Your task to perform on an android device: Open Wikipedia Image 0: 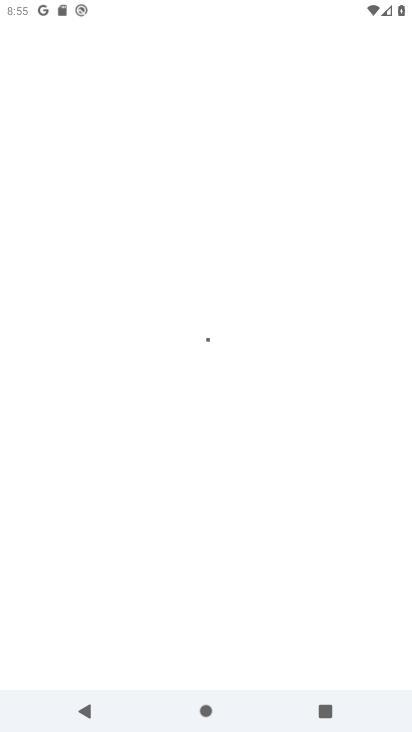
Step 0: press home button
Your task to perform on an android device: Open Wikipedia Image 1: 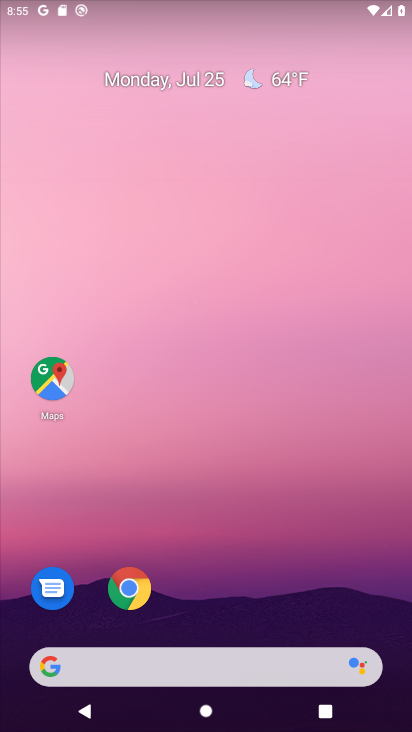
Step 1: click (126, 598)
Your task to perform on an android device: Open Wikipedia Image 2: 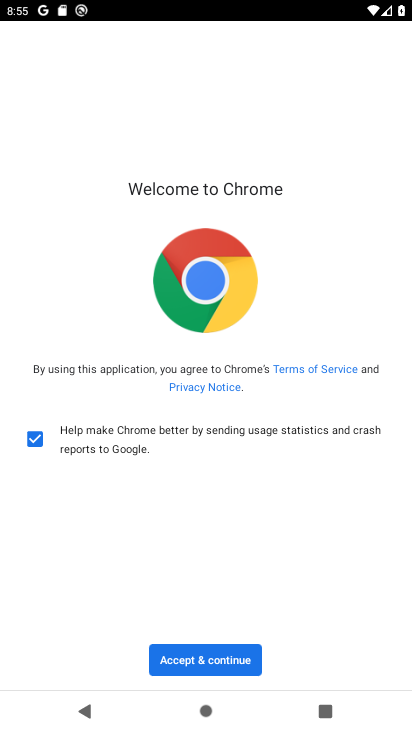
Step 2: click (202, 660)
Your task to perform on an android device: Open Wikipedia Image 3: 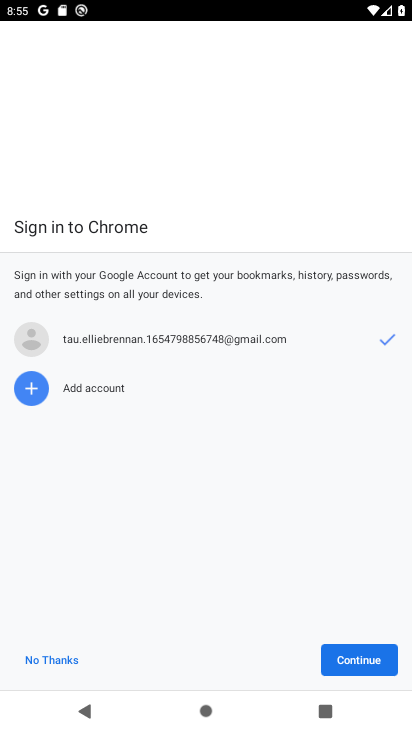
Step 3: click (325, 654)
Your task to perform on an android device: Open Wikipedia Image 4: 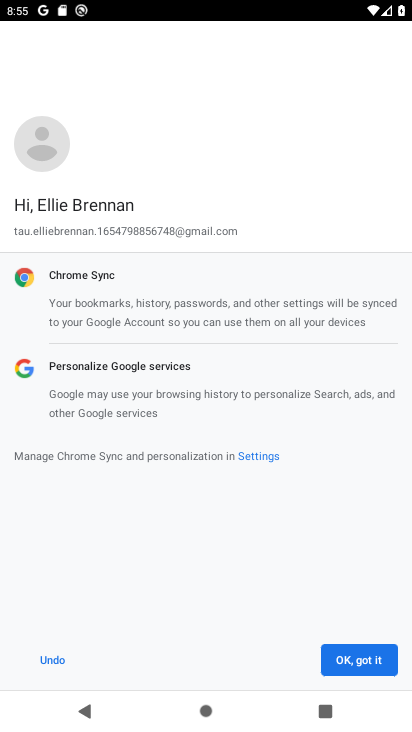
Step 4: click (325, 654)
Your task to perform on an android device: Open Wikipedia Image 5: 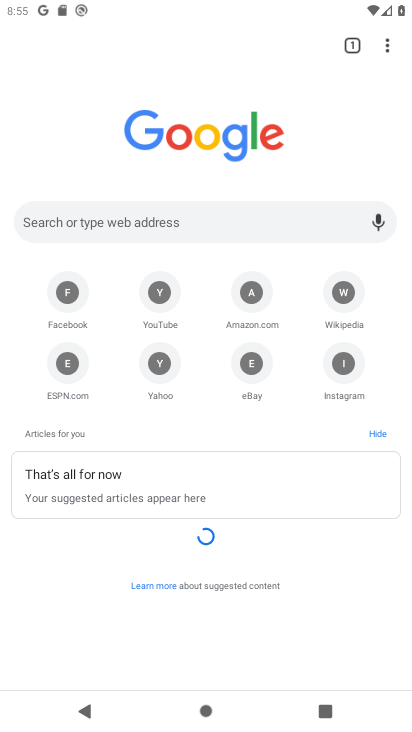
Step 5: click (348, 294)
Your task to perform on an android device: Open Wikipedia Image 6: 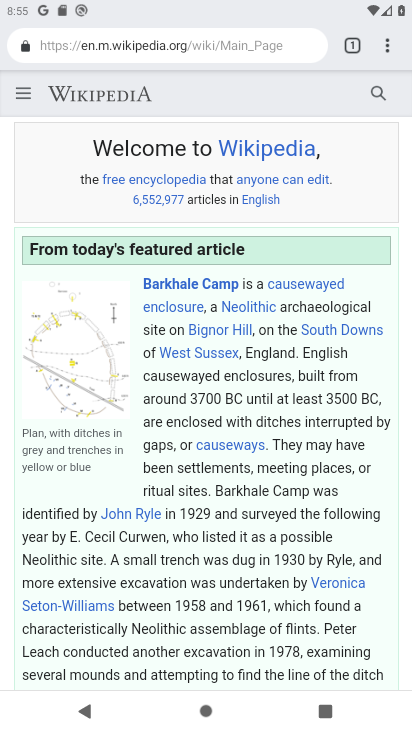
Step 6: task complete